Your task to perform on an android device: Search for Mexican restaurants on Maps Image 0: 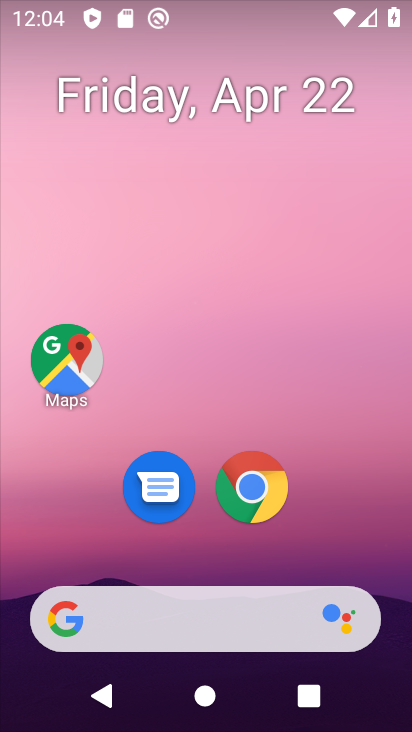
Step 0: click (69, 375)
Your task to perform on an android device: Search for Mexican restaurants on Maps Image 1: 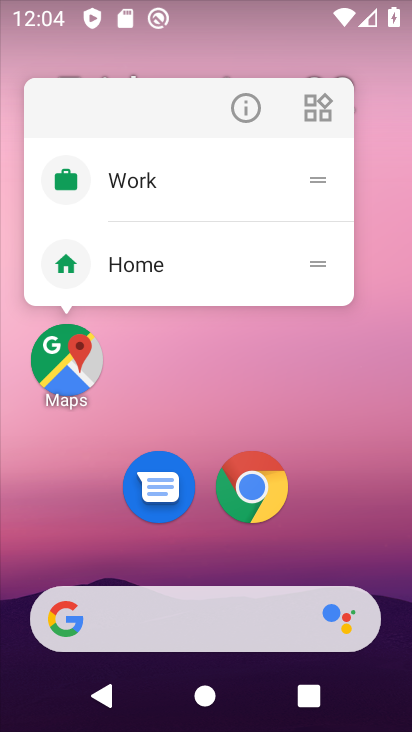
Step 1: click (71, 377)
Your task to perform on an android device: Search for Mexican restaurants on Maps Image 2: 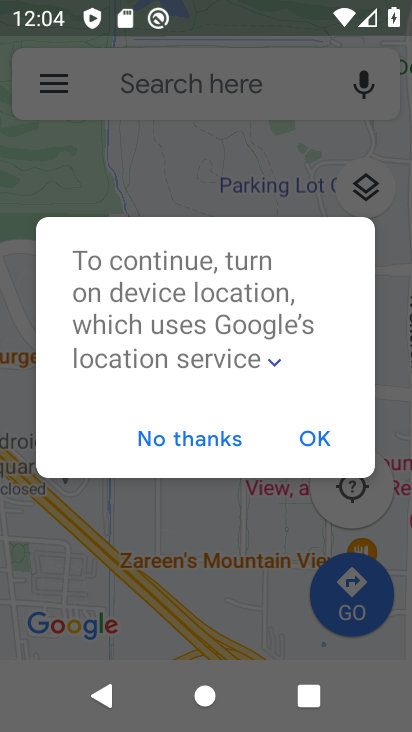
Step 2: click (181, 87)
Your task to perform on an android device: Search for Mexican restaurants on Maps Image 3: 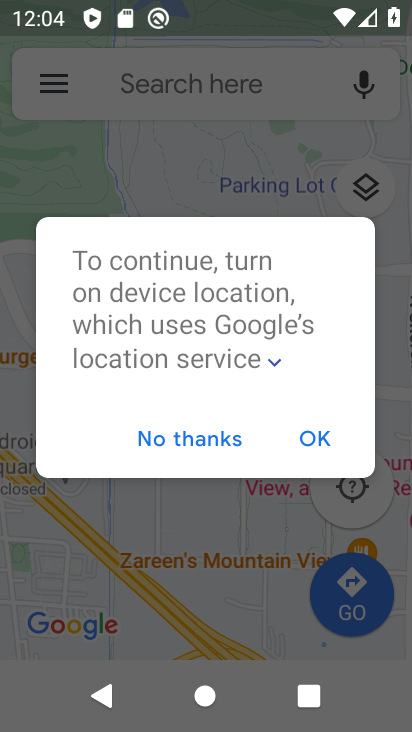
Step 3: click (214, 437)
Your task to perform on an android device: Search for Mexican restaurants on Maps Image 4: 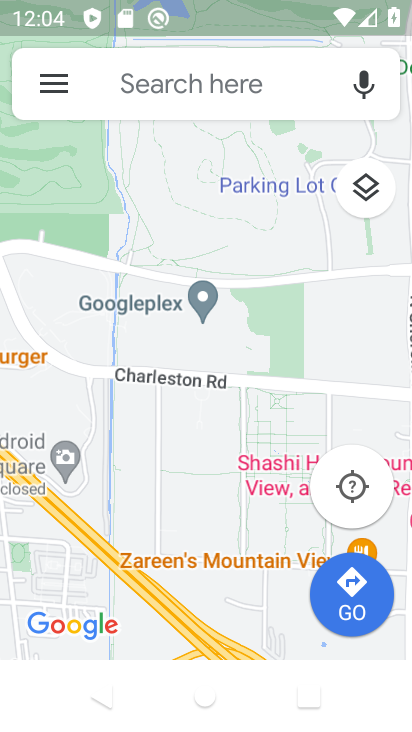
Step 4: click (226, 77)
Your task to perform on an android device: Search for Mexican restaurants on Maps Image 5: 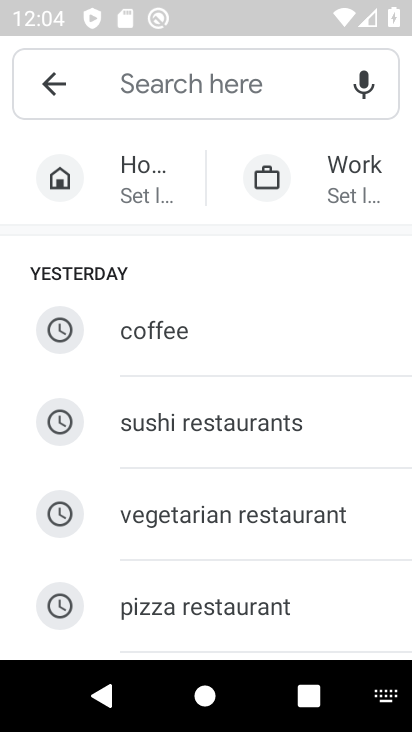
Step 5: drag from (263, 548) to (279, 210)
Your task to perform on an android device: Search for Mexican restaurants on Maps Image 6: 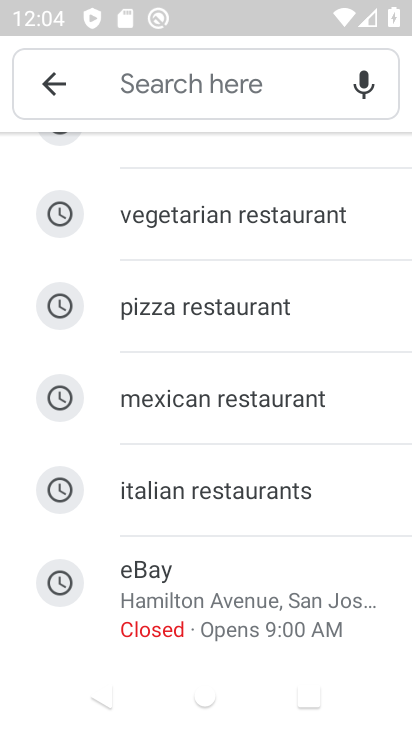
Step 6: click (266, 400)
Your task to perform on an android device: Search for Mexican restaurants on Maps Image 7: 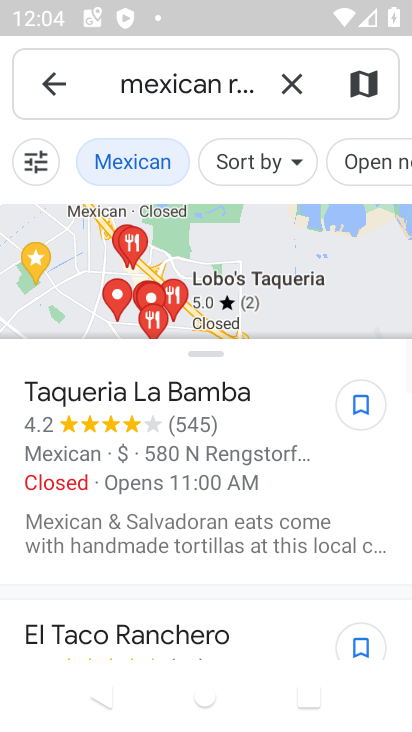
Step 7: task complete